Your task to perform on an android device: Do I have any events this weekend? Image 0: 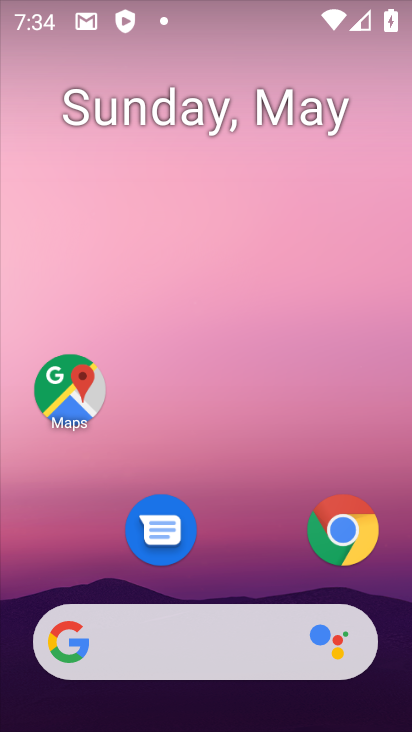
Step 0: drag from (254, 595) to (219, 4)
Your task to perform on an android device: Do I have any events this weekend? Image 1: 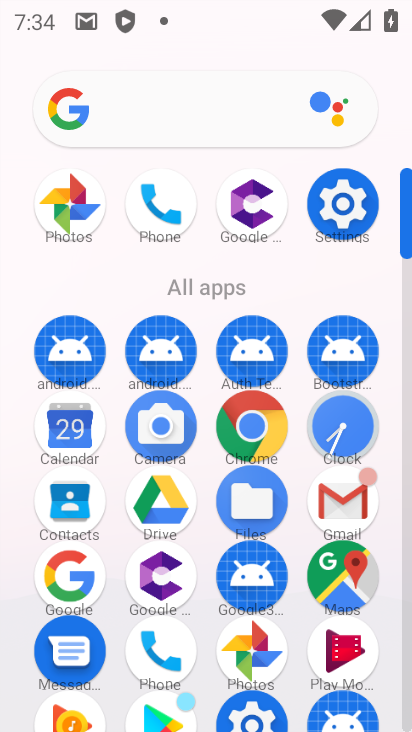
Step 1: click (74, 429)
Your task to perform on an android device: Do I have any events this weekend? Image 2: 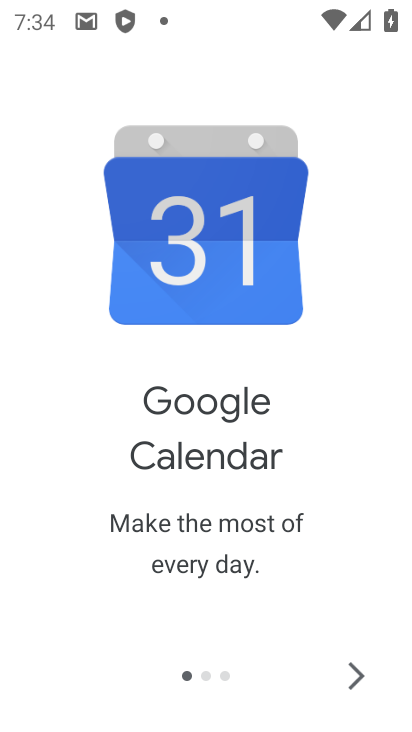
Step 2: click (349, 672)
Your task to perform on an android device: Do I have any events this weekend? Image 3: 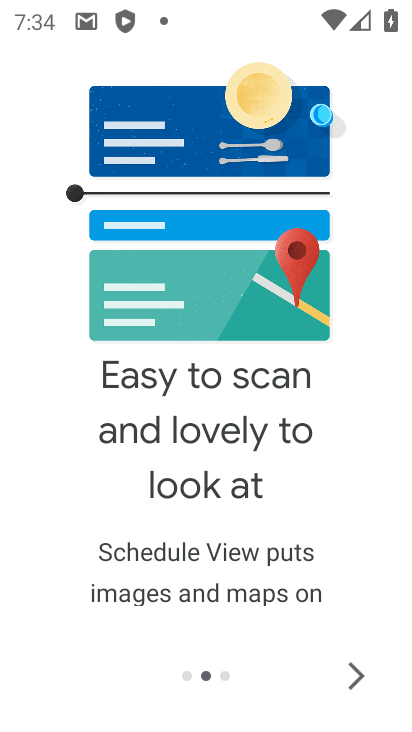
Step 3: click (366, 671)
Your task to perform on an android device: Do I have any events this weekend? Image 4: 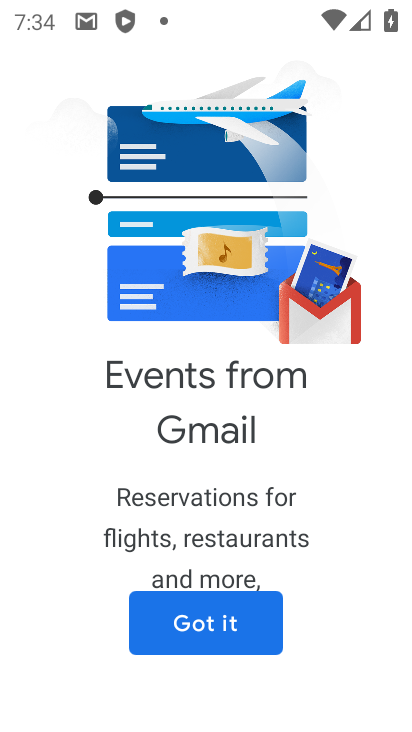
Step 4: click (231, 624)
Your task to perform on an android device: Do I have any events this weekend? Image 5: 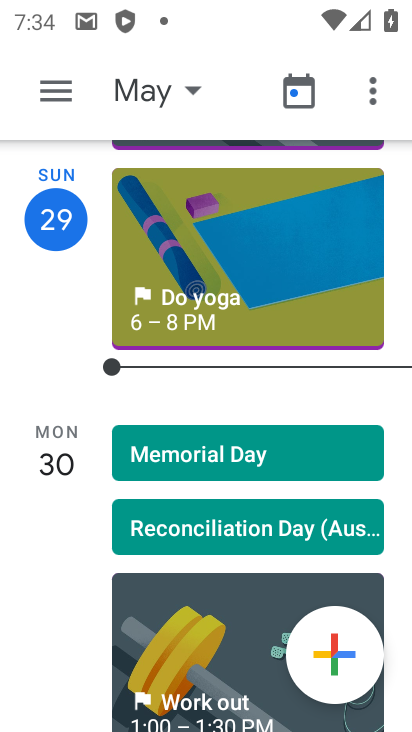
Step 5: click (51, 90)
Your task to perform on an android device: Do I have any events this weekend? Image 6: 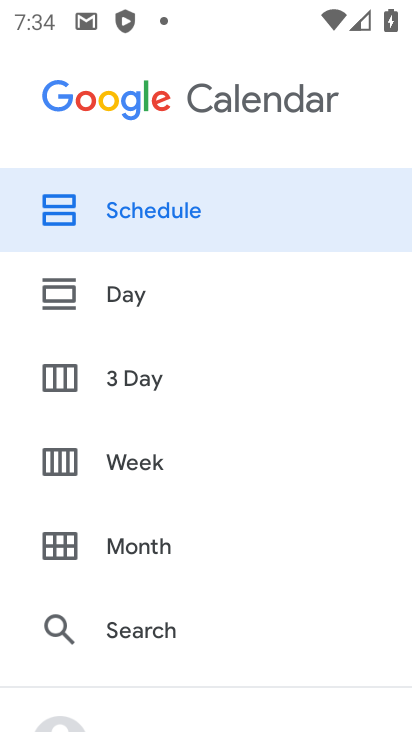
Step 6: click (157, 465)
Your task to perform on an android device: Do I have any events this weekend? Image 7: 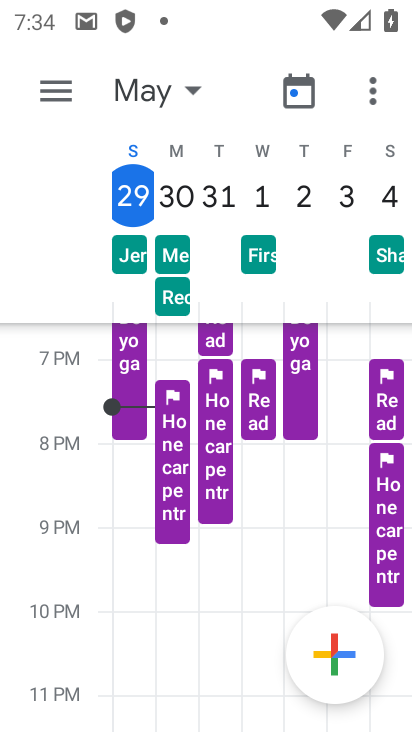
Step 7: task complete